Your task to perform on an android device: Open Chrome and go to settings Image 0: 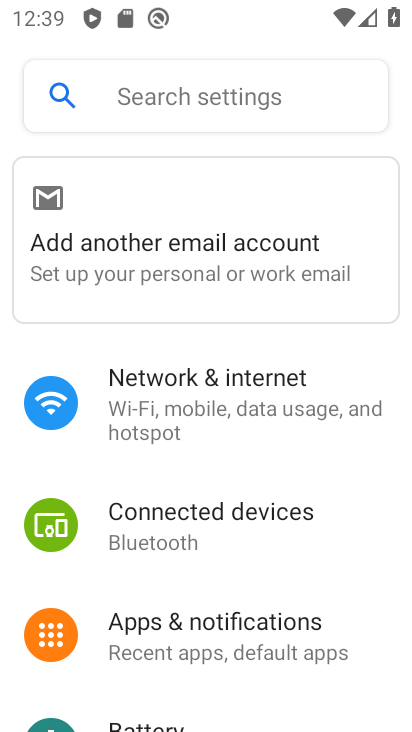
Step 0: press home button
Your task to perform on an android device: Open Chrome and go to settings Image 1: 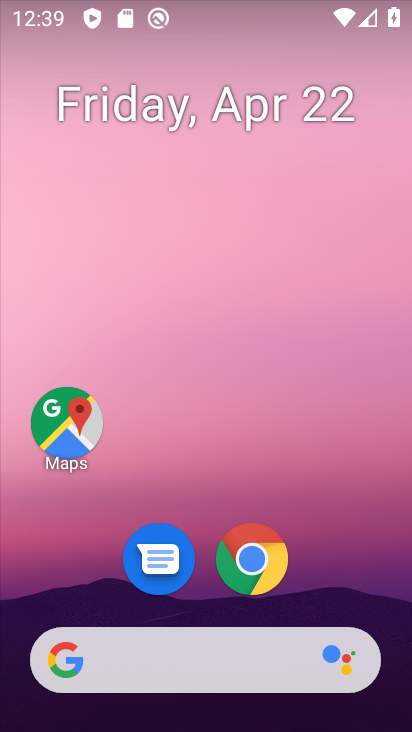
Step 1: drag from (352, 619) to (241, 60)
Your task to perform on an android device: Open Chrome and go to settings Image 2: 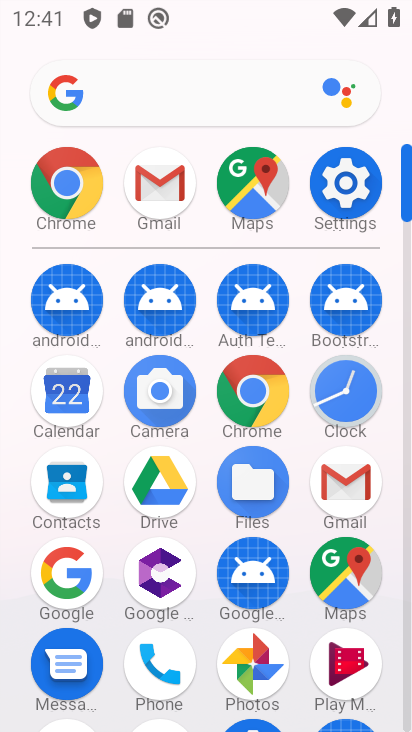
Step 2: click (243, 382)
Your task to perform on an android device: Open Chrome and go to settings Image 3: 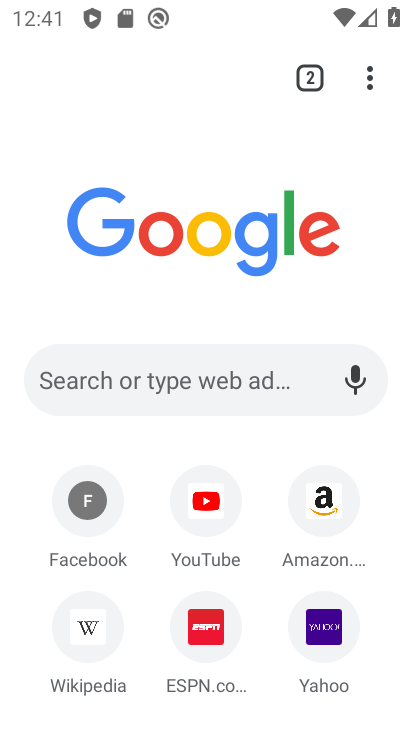
Step 3: click (367, 80)
Your task to perform on an android device: Open Chrome and go to settings Image 4: 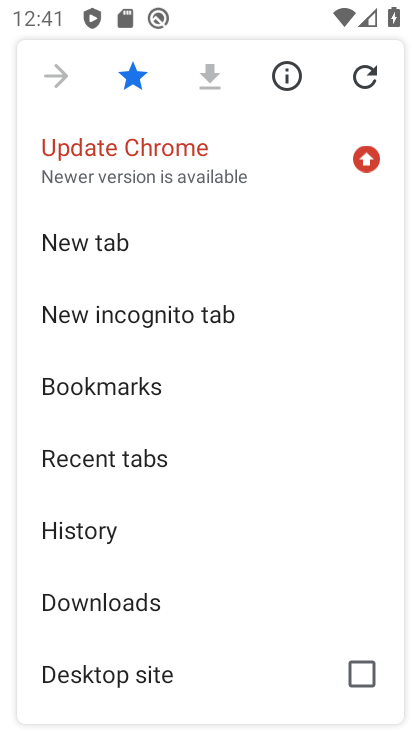
Step 4: drag from (153, 573) to (215, 216)
Your task to perform on an android device: Open Chrome and go to settings Image 5: 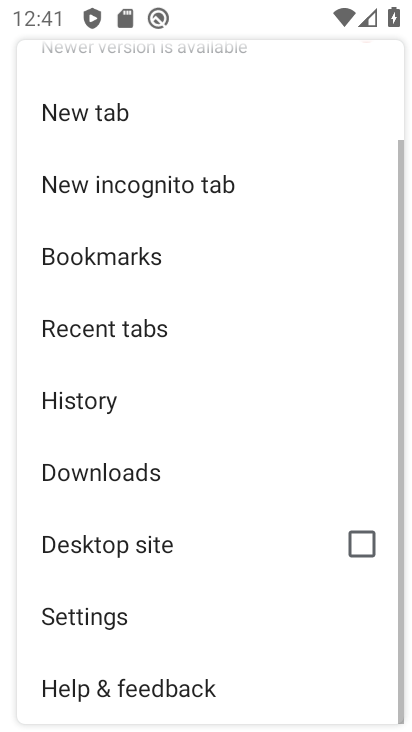
Step 5: click (130, 625)
Your task to perform on an android device: Open Chrome and go to settings Image 6: 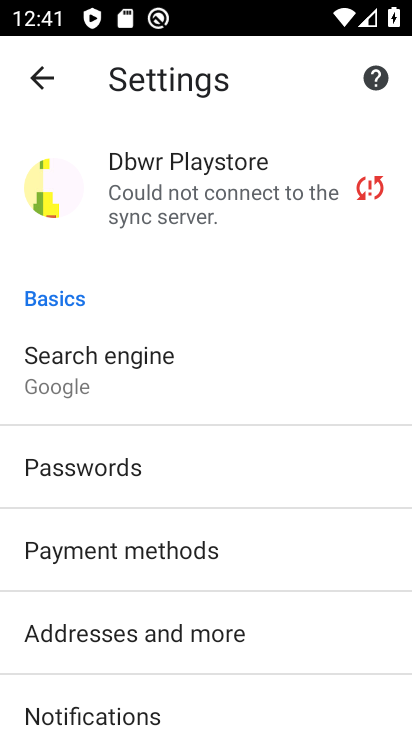
Step 6: task complete